Your task to perform on an android device: Turn off the flashlight Image 0: 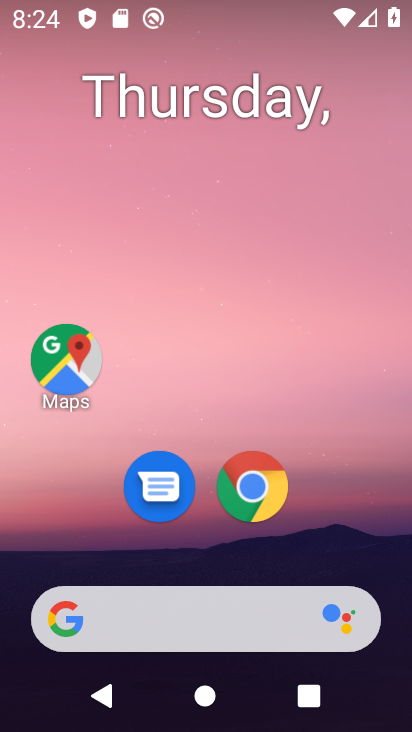
Step 0: drag from (131, 582) to (190, 2)
Your task to perform on an android device: Turn off the flashlight Image 1: 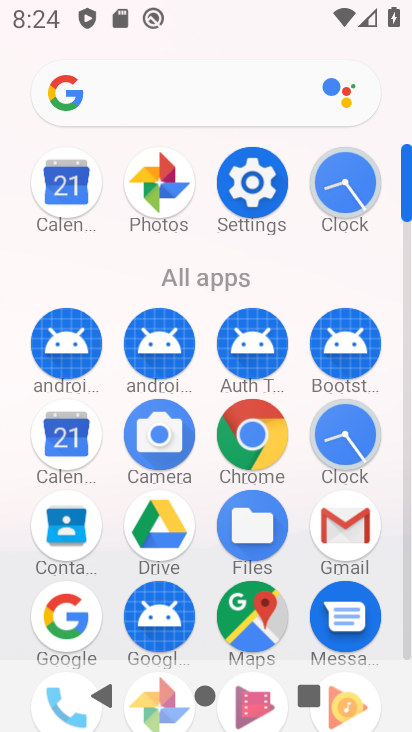
Step 1: click (252, 187)
Your task to perform on an android device: Turn off the flashlight Image 2: 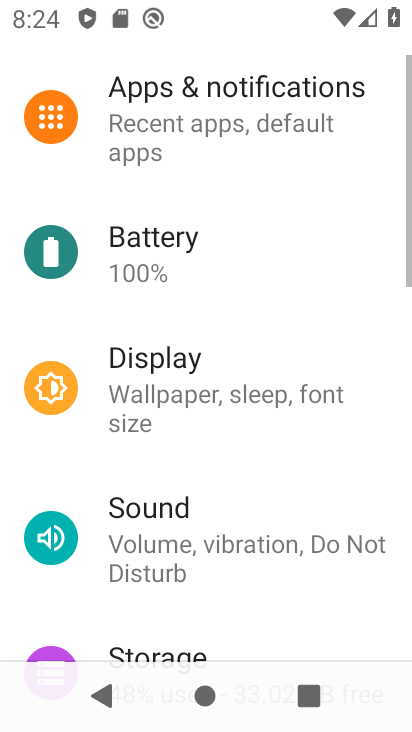
Step 2: drag from (216, 203) to (215, 684)
Your task to perform on an android device: Turn off the flashlight Image 3: 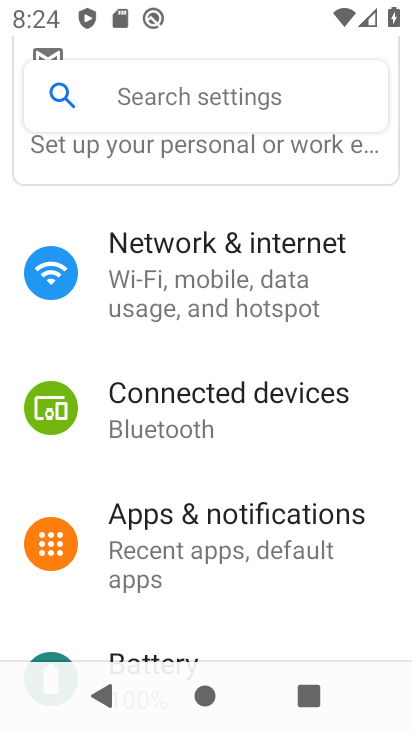
Step 3: click (182, 102)
Your task to perform on an android device: Turn off the flashlight Image 4: 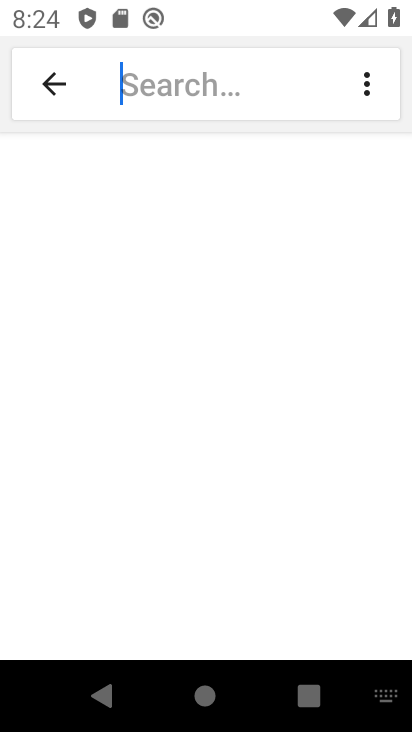
Step 4: type "flashlight"
Your task to perform on an android device: Turn off the flashlight Image 5: 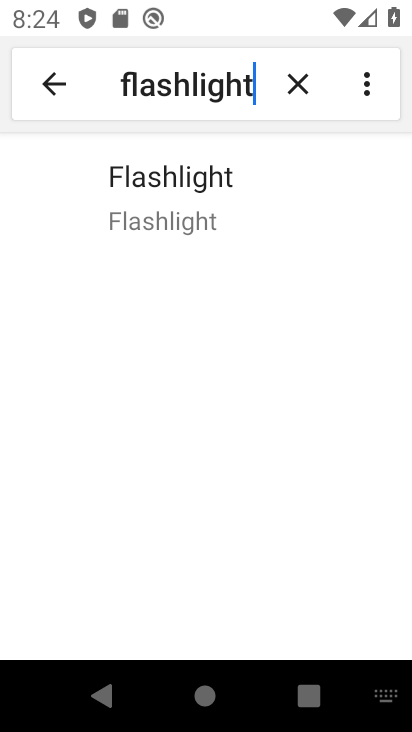
Step 5: click (182, 196)
Your task to perform on an android device: Turn off the flashlight Image 6: 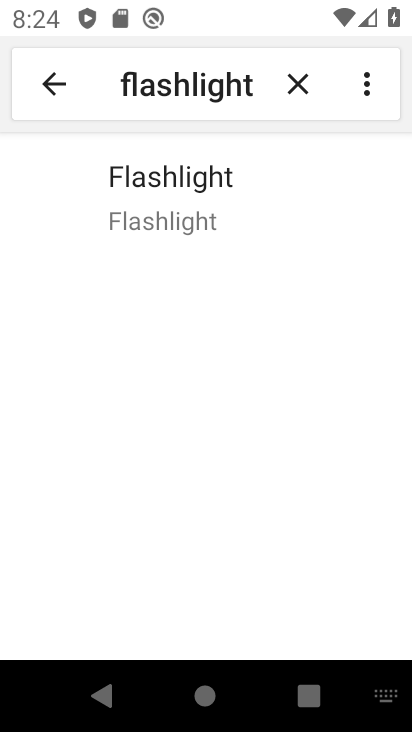
Step 6: task complete